Your task to perform on an android device: clear all cookies in the chrome app Image 0: 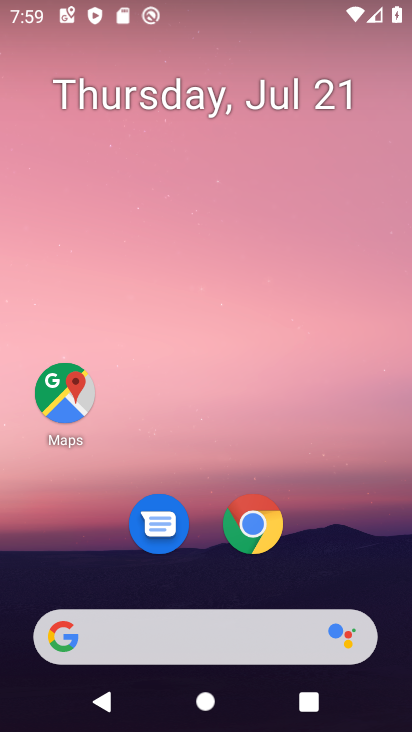
Step 0: click (262, 520)
Your task to perform on an android device: clear all cookies in the chrome app Image 1: 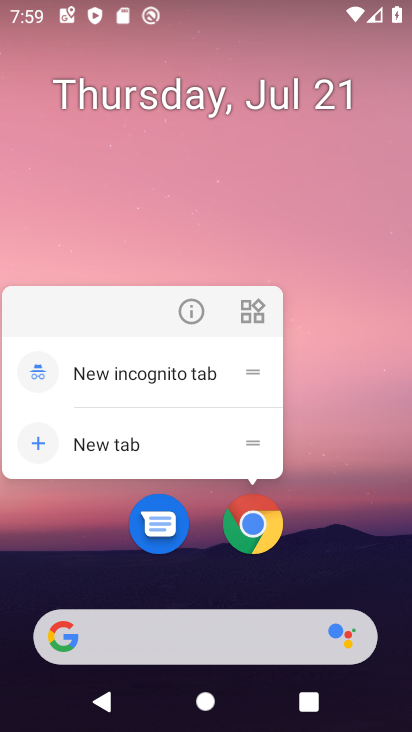
Step 1: click (256, 525)
Your task to perform on an android device: clear all cookies in the chrome app Image 2: 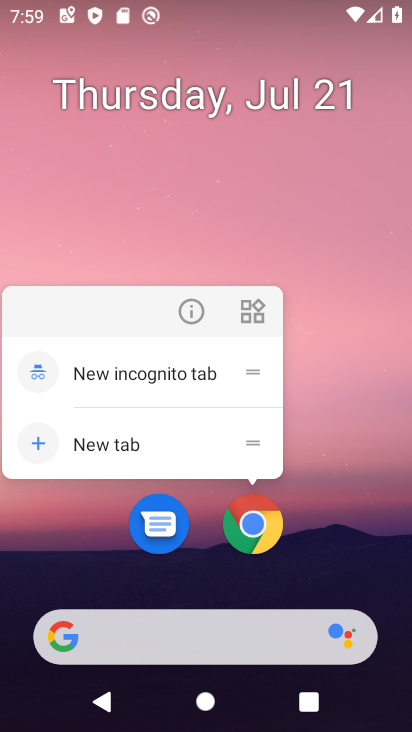
Step 2: click (256, 525)
Your task to perform on an android device: clear all cookies in the chrome app Image 3: 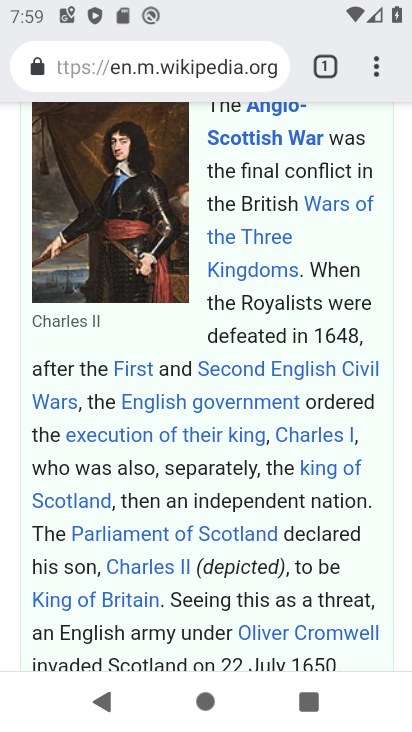
Step 3: drag from (378, 69) to (240, 524)
Your task to perform on an android device: clear all cookies in the chrome app Image 4: 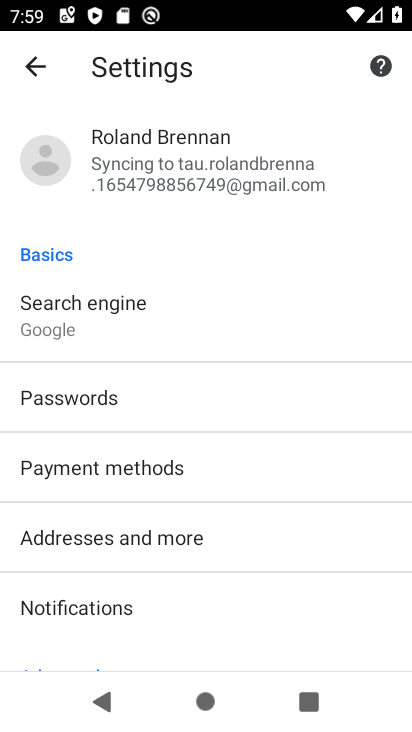
Step 4: drag from (223, 593) to (338, 133)
Your task to perform on an android device: clear all cookies in the chrome app Image 5: 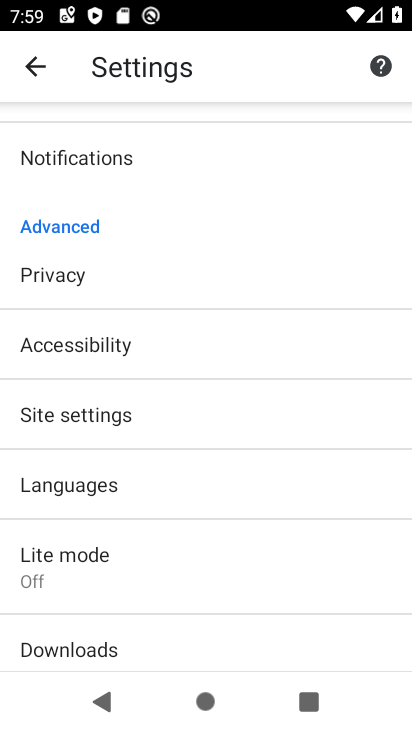
Step 5: click (49, 278)
Your task to perform on an android device: clear all cookies in the chrome app Image 6: 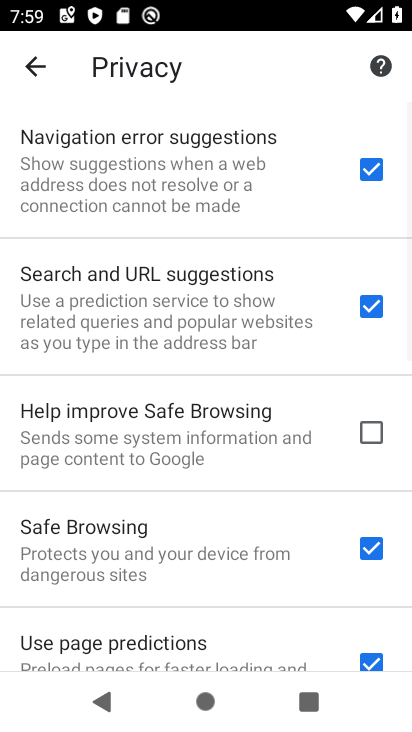
Step 6: drag from (164, 605) to (293, 120)
Your task to perform on an android device: clear all cookies in the chrome app Image 7: 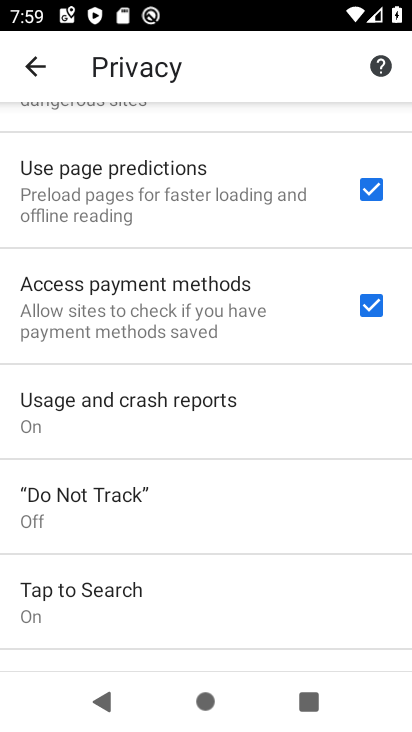
Step 7: drag from (202, 602) to (283, 183)
Your task to perform on an android device: clear all cookies in the chrome app Image 8: 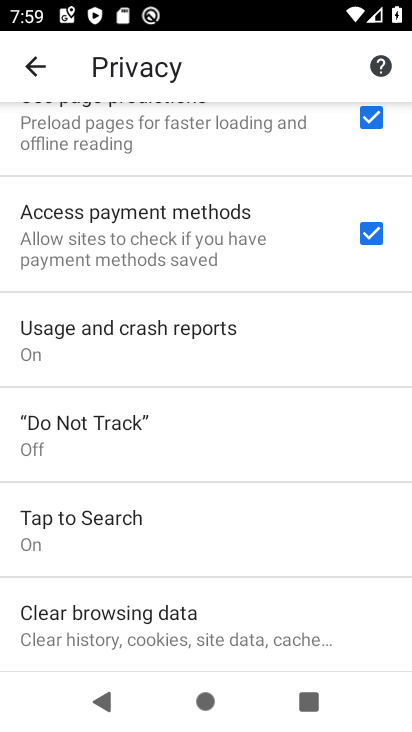
Step 8: click (196, 609)
Your task to perform on an android device: clear all cookies in the chrome app Image 9: 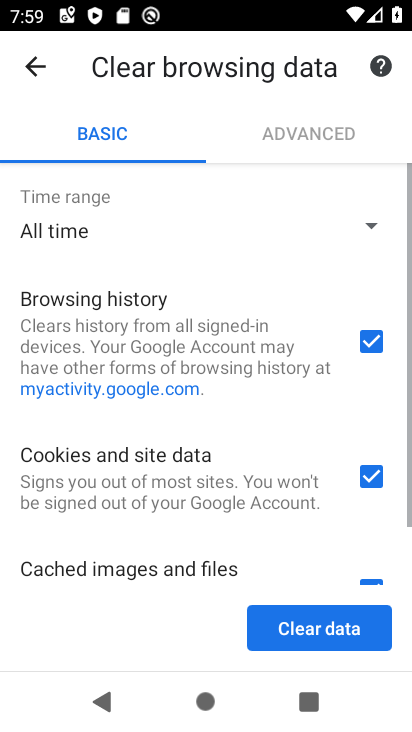
Step 9: click (369, 343)
Your task to perform on an android device: clear all cookies in the chrome app Image 10: 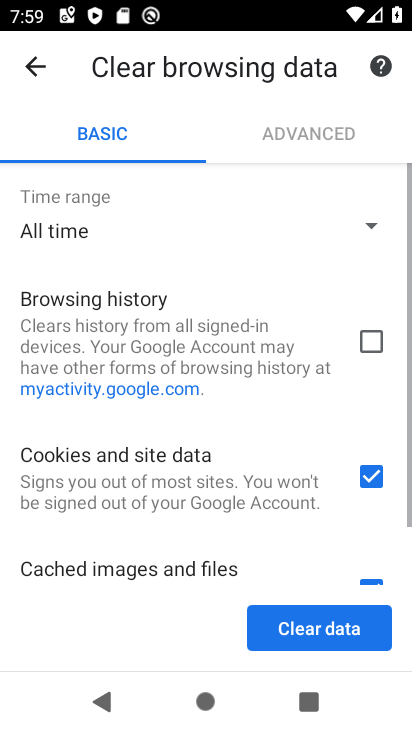
Step 10: drag from (311, 539) to (411, 230)
Your task to perform on an android device: clear all cookies in the chrome app Image 11: 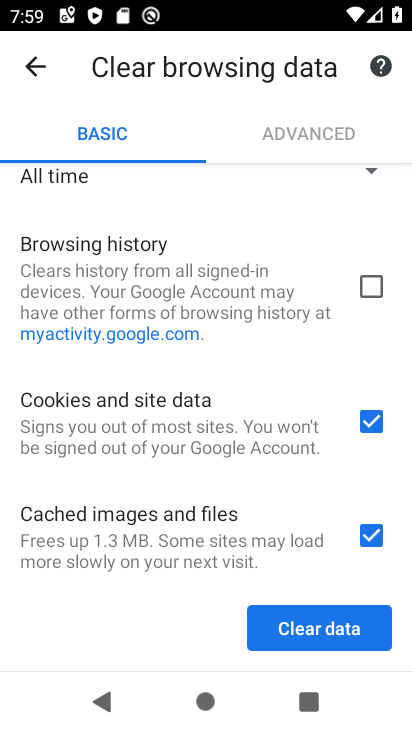
Step 11: click (364, 524)
Your task to perform on an android device: clear all cookies in the chrome app Image 12: 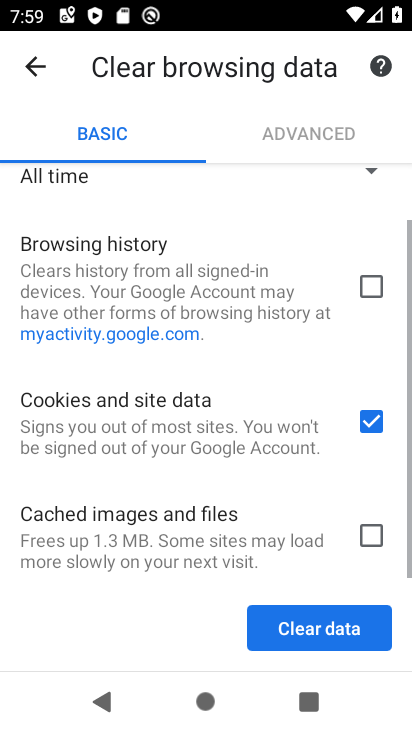
Step 12: click (334, 628)
Your task to perform on an android device: clear all cookies in the chrome app Image 13: 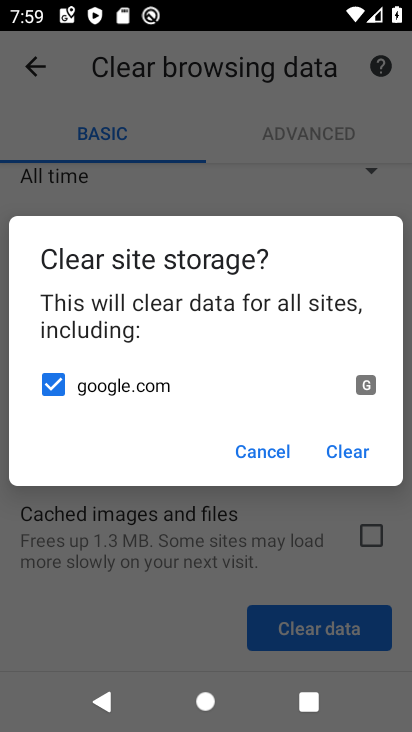
Step 13: click (353, 450)
Your task to perform on an android device: clear all cookies in the chrome app Image 14: 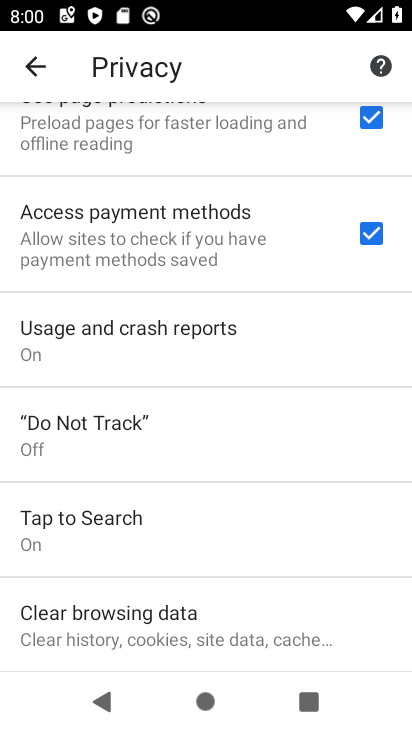
Step 14: task complete